Your task to perform on an android device: turn off smart reply in the gmail app Image 0: 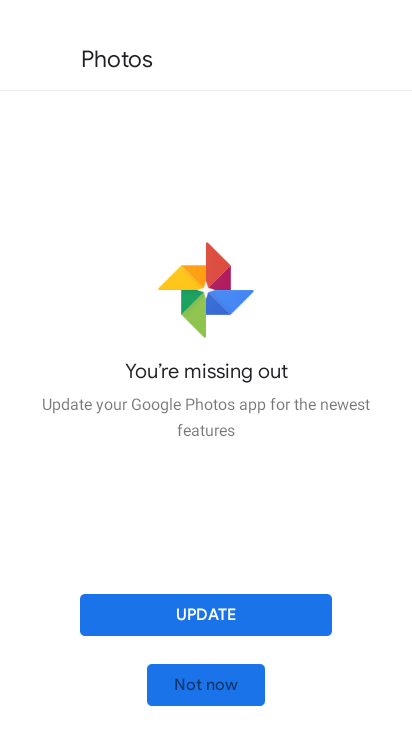
Step 0: press back button
Your task to perform on an android device: turn off smart reply in the gmail app Image 1: 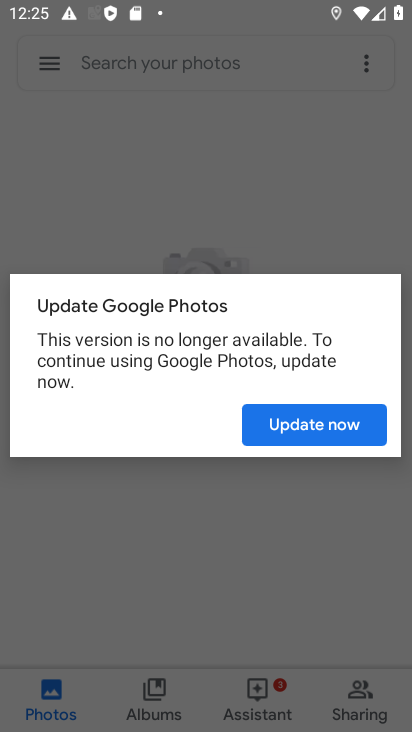
Step 1: press home button
Your task to perform on an android device: turn off smart reply in the gmail app Image 2: 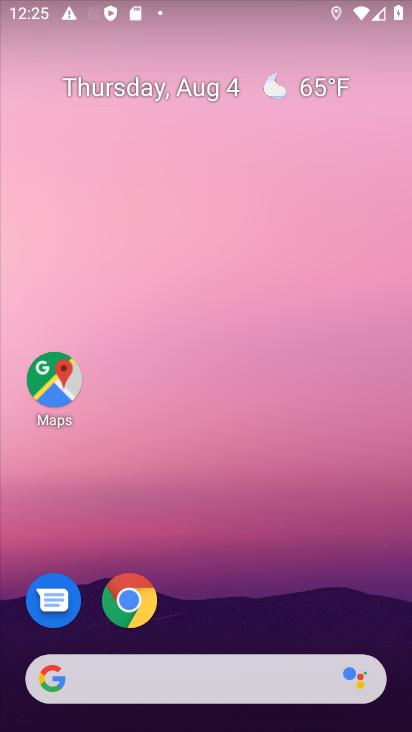
Step 2: drag from (231, 619) to (166, 70)
Your task to perform on an android device: turn off smart reply in the gmail app Image 3: 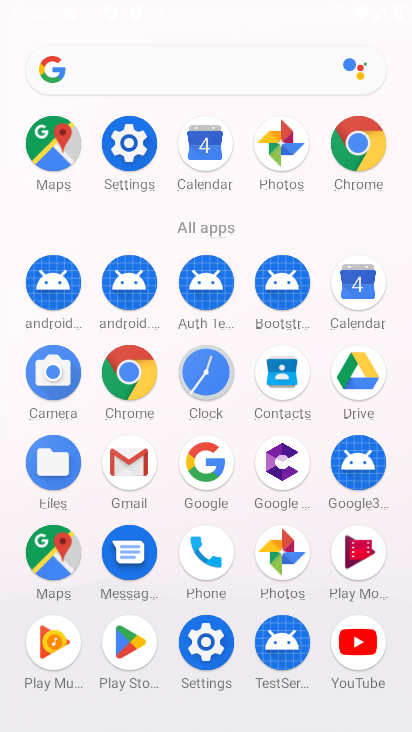
Step 3: click (127, 455)
Your task to perform on an android device: turn off smart reply in the gmail app Image 4: 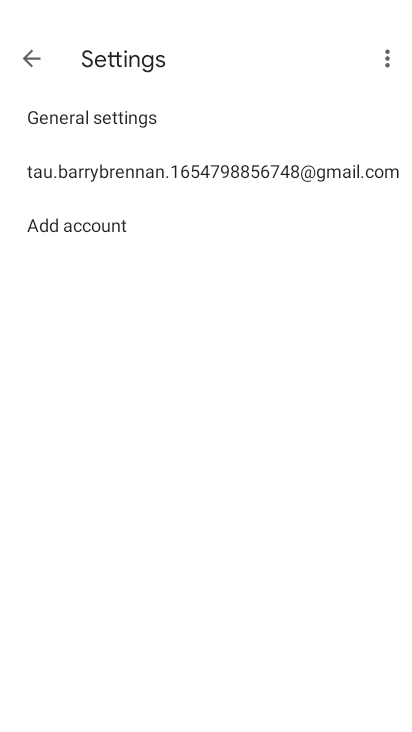
Step 4: click (65, 160)
Your task to perform on an android device: turn off smart reply in the gmail app Image 5: 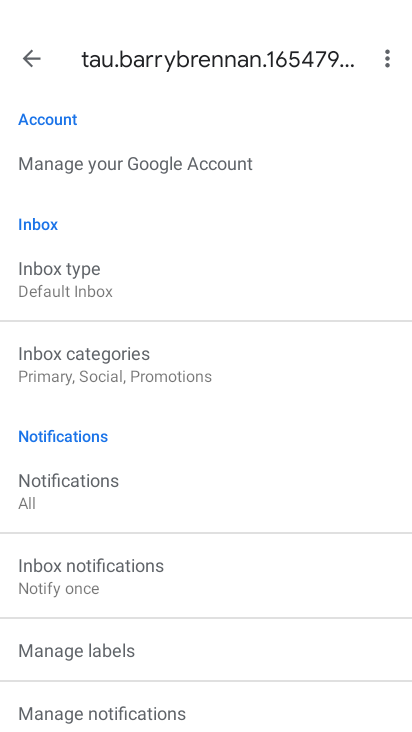
Step 5: click (35, 55)
Your task to perform on an android device: turn off smart reply in the gmail app Image 6: 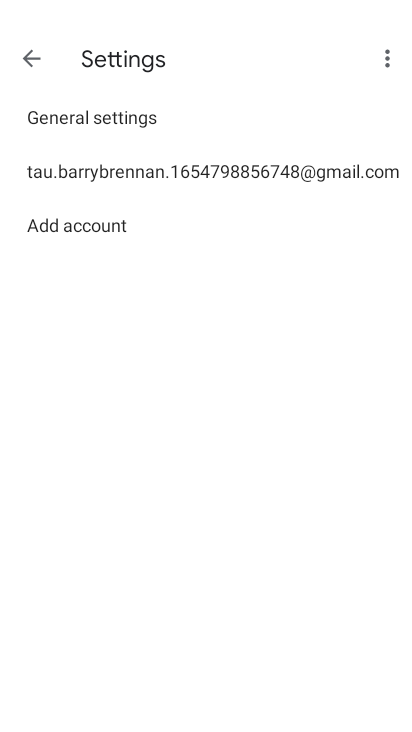
Step 6: click (73, 102)
Your task to perform on an android device: turn off smart reply in the gmail app Image 7: 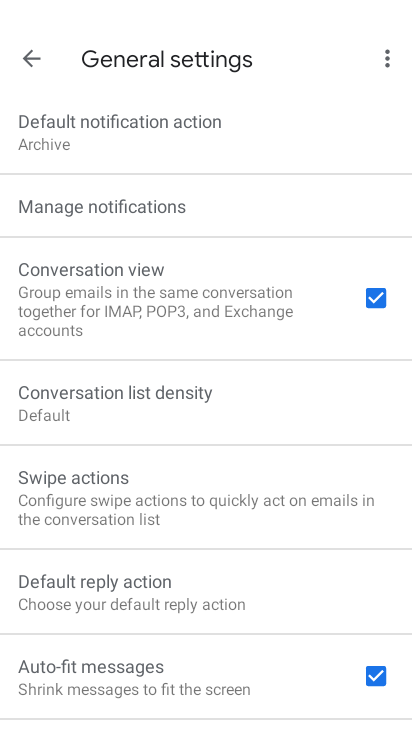
Step 7: drag from (338, 540) to (276, 141)
Your task to perform on an android device: turn off smart reply in the gmail app Image 8: 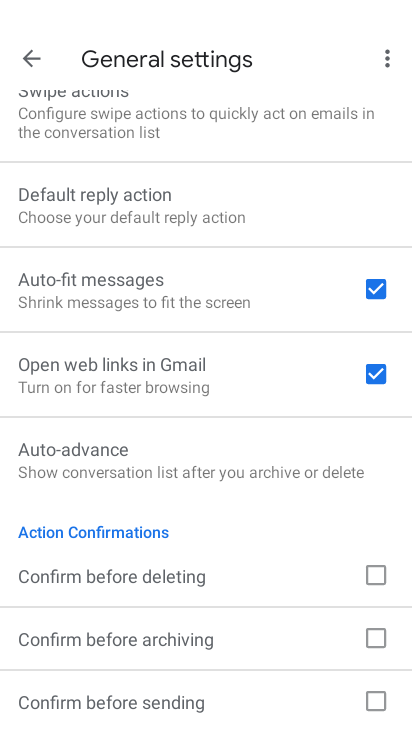
Step 8: click (30, 45)
Your task to perform on an android device: turn off smart reply in the gmail app Image 9: 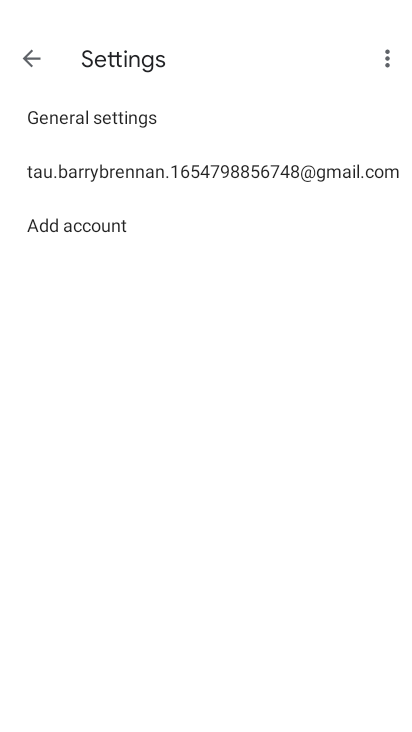
Step 9: click (48, 150)
Your task to perform on an android device: turn off smart reply in the gmail app Image 10: 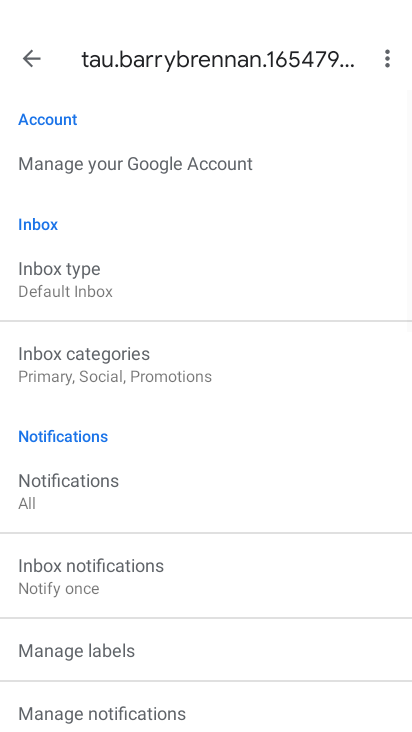
Step 10: drag from (158, 543) to (173, 90)
Your task to perform on an android device: turn off smart reply in the gmail app Image 11: 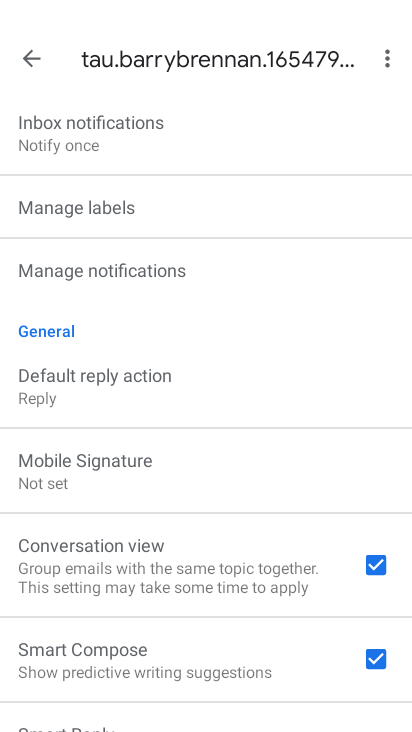
Step 11: drag from (189, 602) to (168, 95)
Your task to perform on an android device: turn off smart reply in the gmail app Image 12: 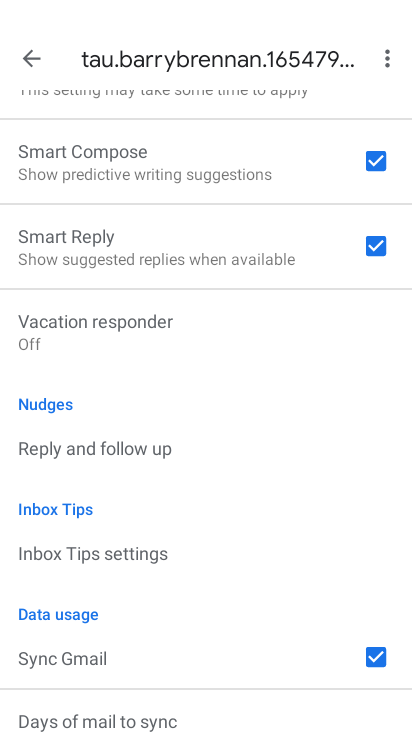
Step 12: click (336, 235)
Your task to perform on an android device: turn off smart reply in the gmail app Image 13: 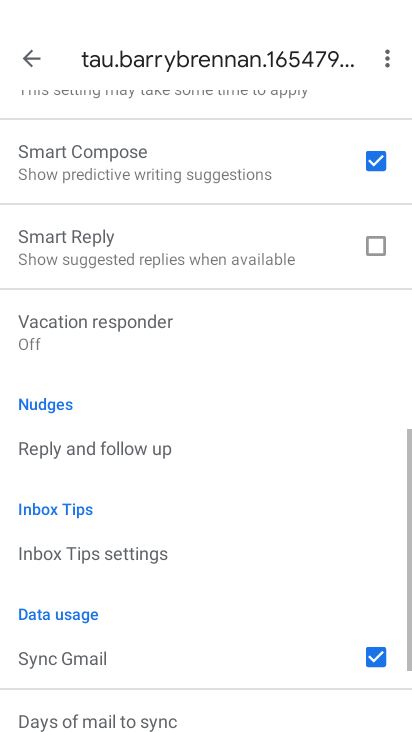
Step 13: task complete